Your task to perform on an android device: Open the web browser Image 0: 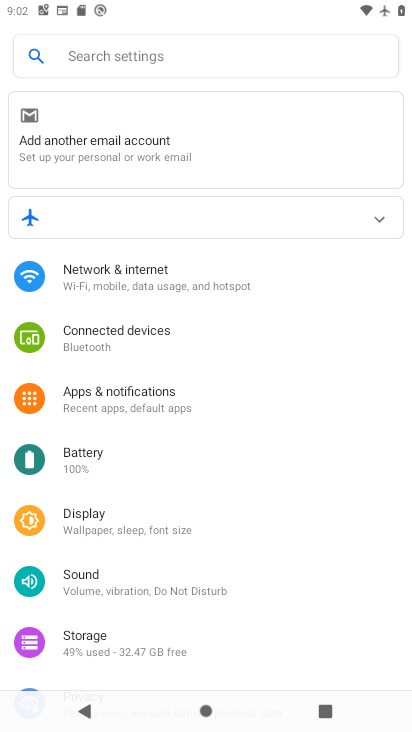
Step 0: press home button
Your task to perform on an android device: Open the web browser Image 1: 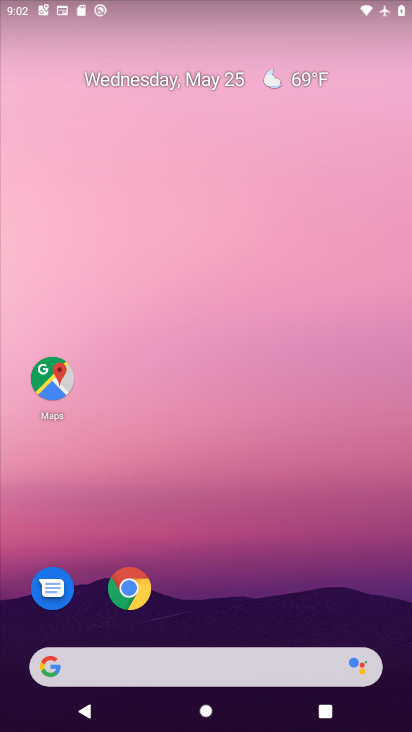
Step 1: drag from (369, 610) to (371, 212)
Your task to perform on an android device: Open the web browser Image 2: 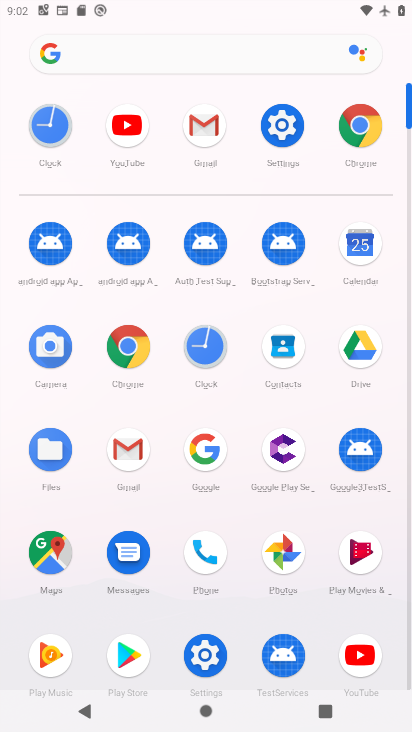
Step 2: click (137, 342)
Your task to perform on an android device: Open the web browser Image 3: 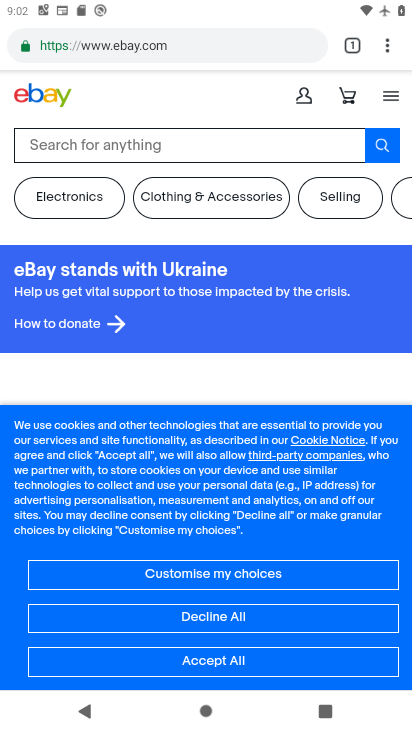
Step 3: task complete